Your task to perform on an android device: Add acer nitro to the cart on costco.com Image 0: 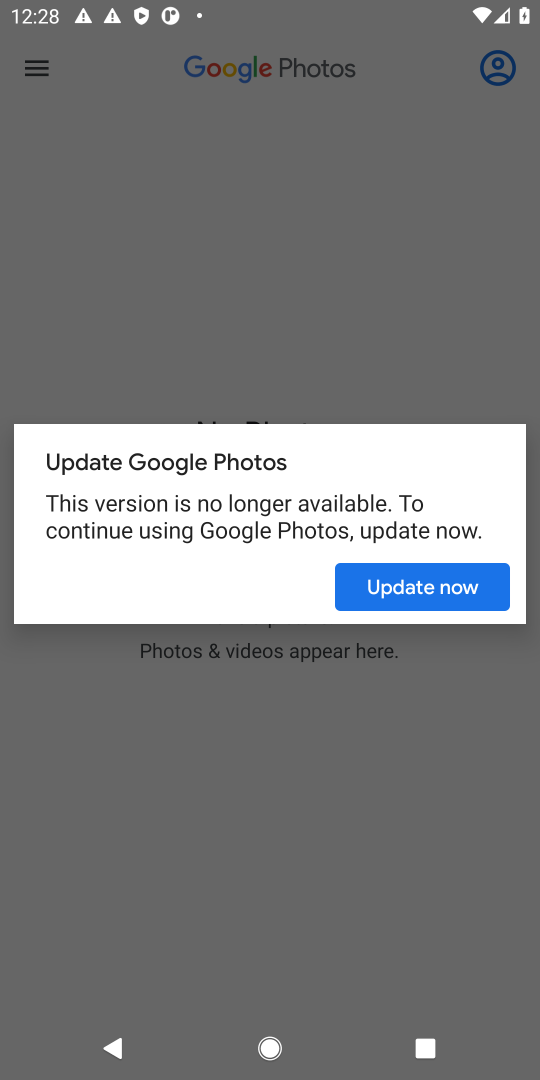
Step 0: press home button
Your task to perform on an android device: Add acer nitro to the cart on costco.com Image 1: 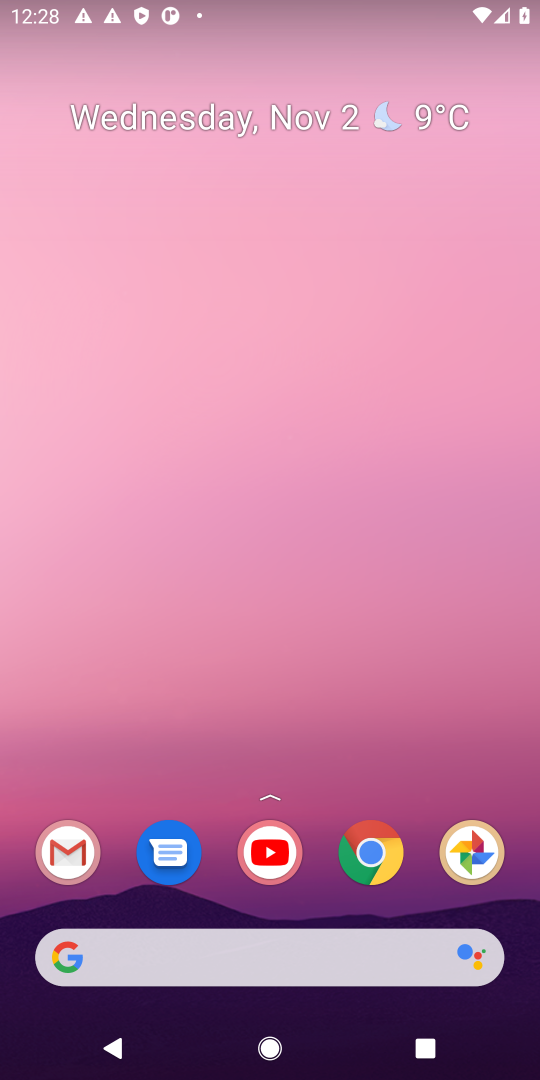
Step 1: drag from (228, 892) to (318, 405)
Your task to perform on an android device: Add acer nitro to the cart on costco.com Image 2: 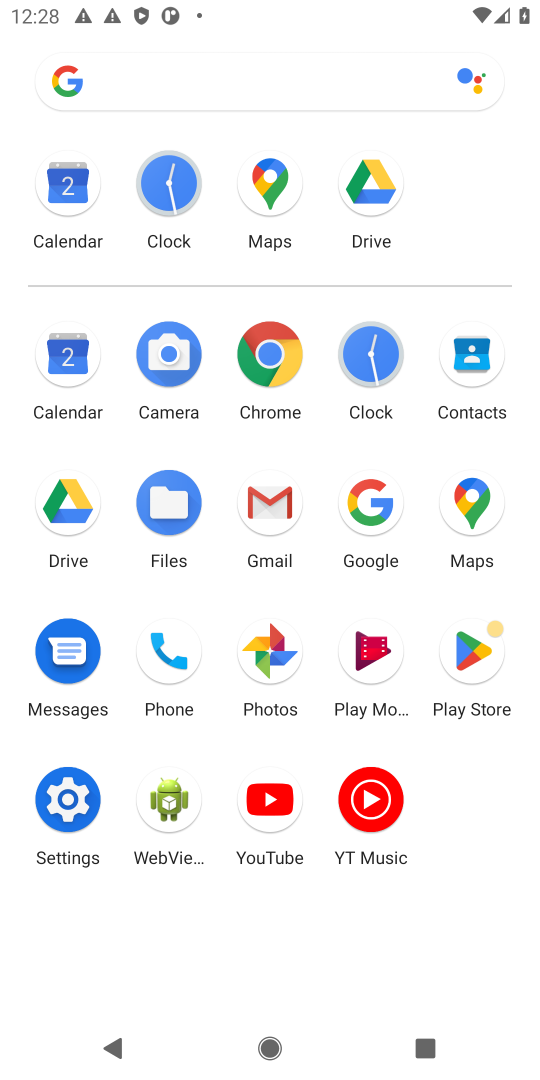
Step 2: click (359, 538)
Your task to perform on an android device: Add acer nitro to the cart on costco.com Image 3: 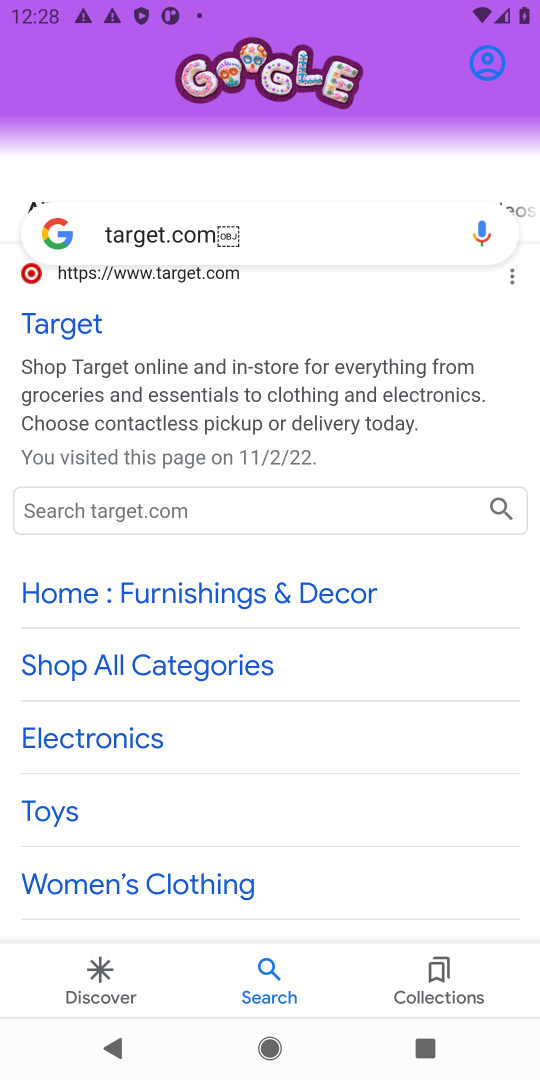
Step 3: click (392, 222)
Your task to perform on an android device: Add acer nitro to the cart on costco.com Image 4: 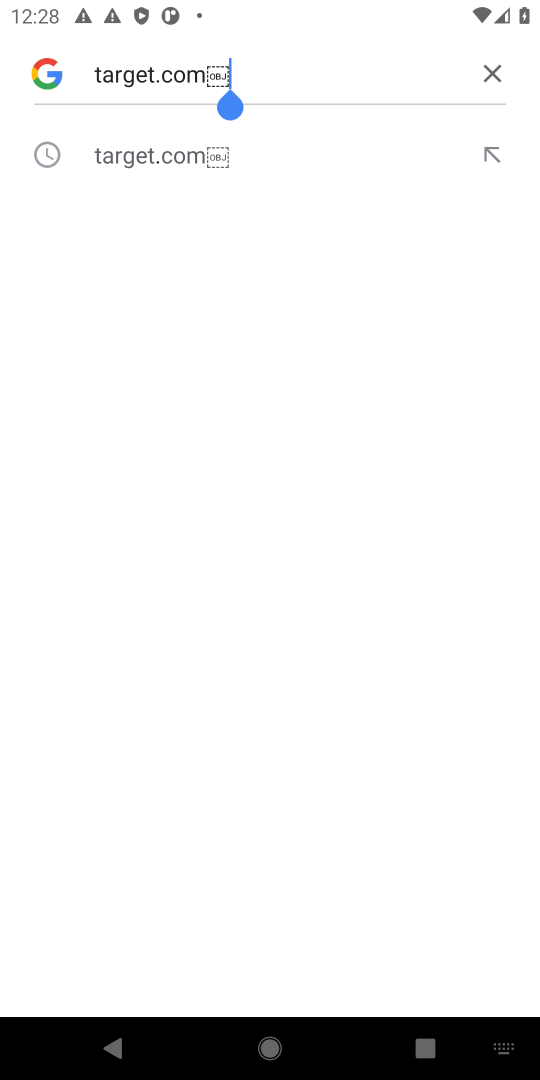
Step 4: click (484, 73)
Your task to perform on an android device: Add acer nitro to the cart on costco.com Image 5: 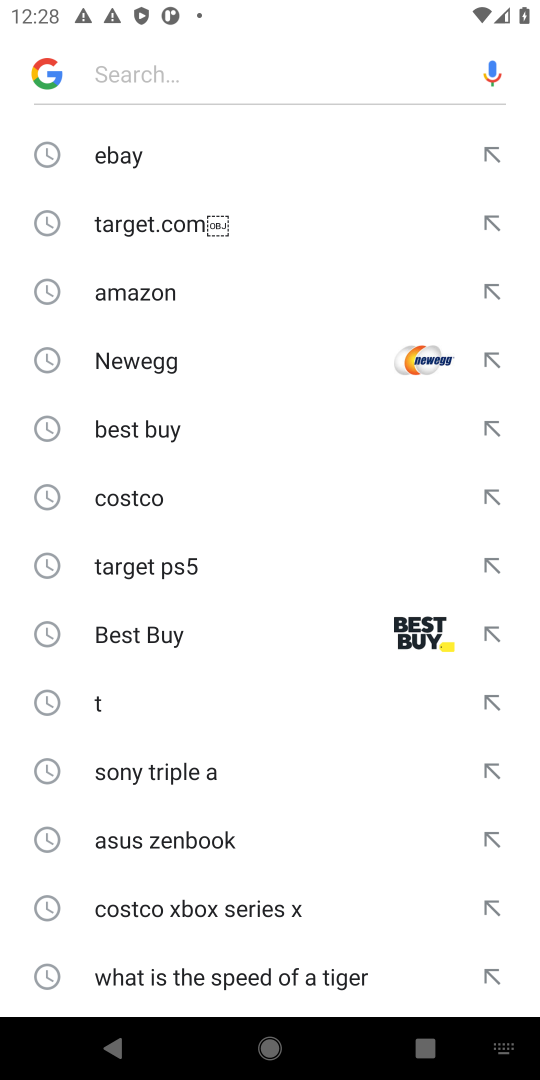
Step 5: type "costco.com"
Your task to perform on an android device: Add acer nitro to the cart on costco.com Image 6: 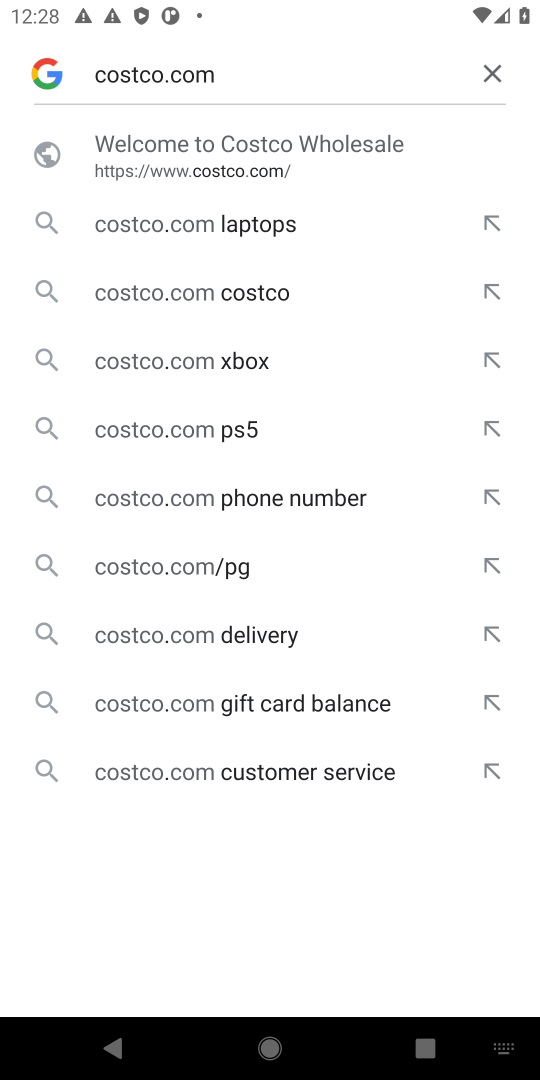
Step 6: click (313, 167)
Your task to perform on an android device: Add acer nitro to the cart on costco.com Image 7: 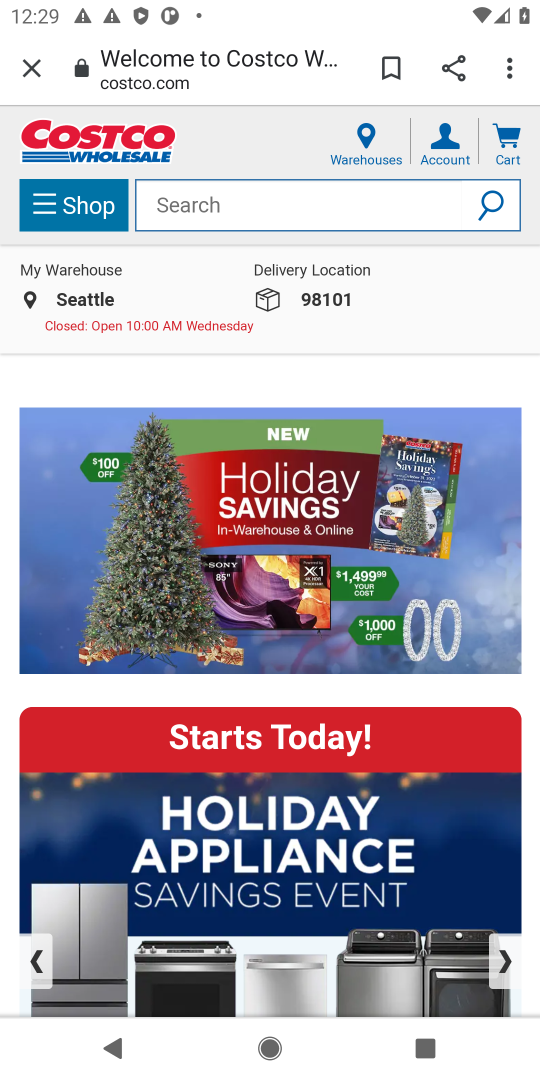
Step 7: click (380, 224)
Your task to perform on an android device: Add acer nitro to the cart on costco.com Image 8: 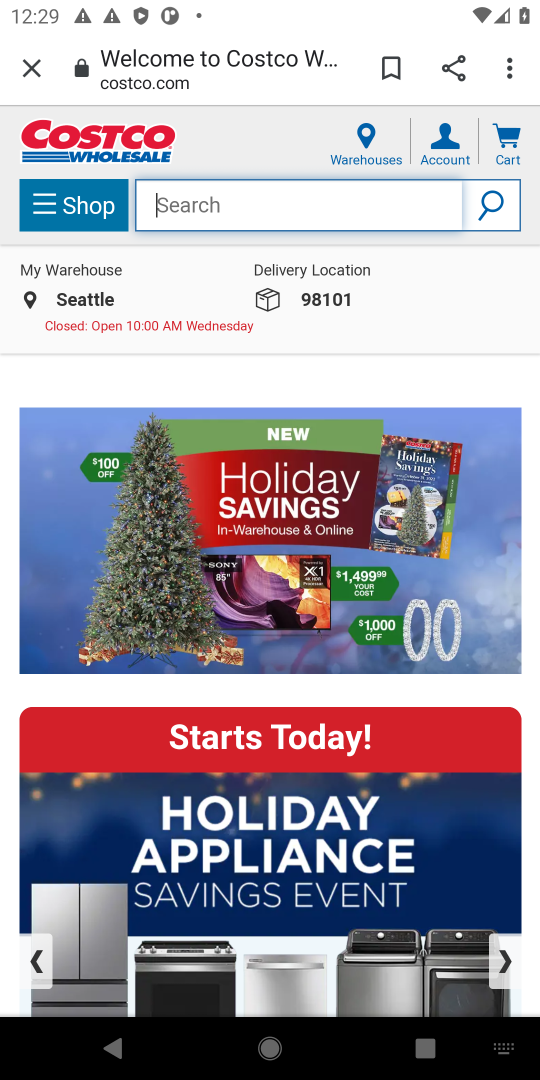
Step 8: type "acer nitro"
Your task to perform on an android device: Add acer nitro to the cart on costco.com Image 9: 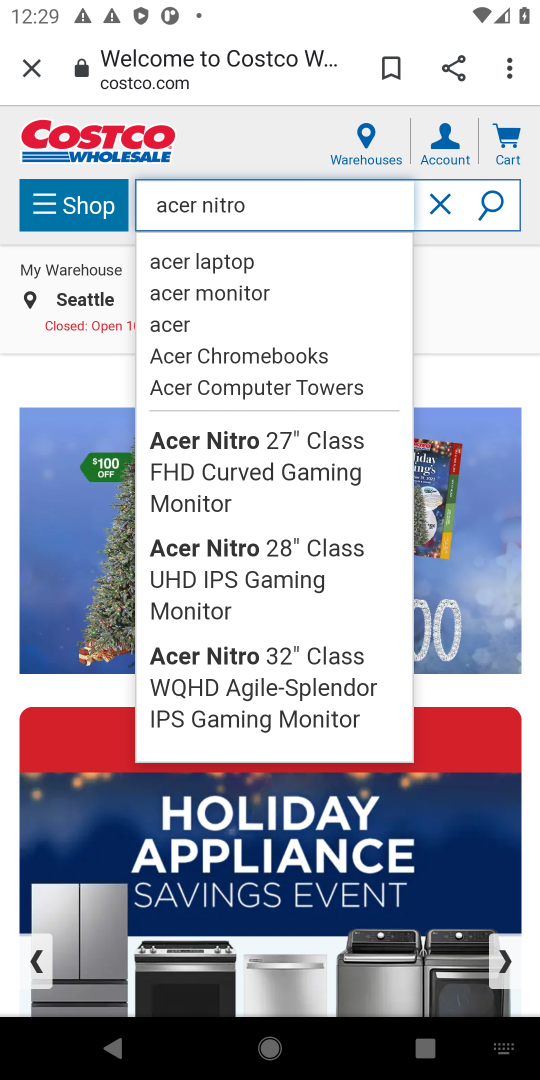
Step 9: click (274, 493)
Your task to perform on an android device: Add acer nitro to the cart on costco.com Image 10: 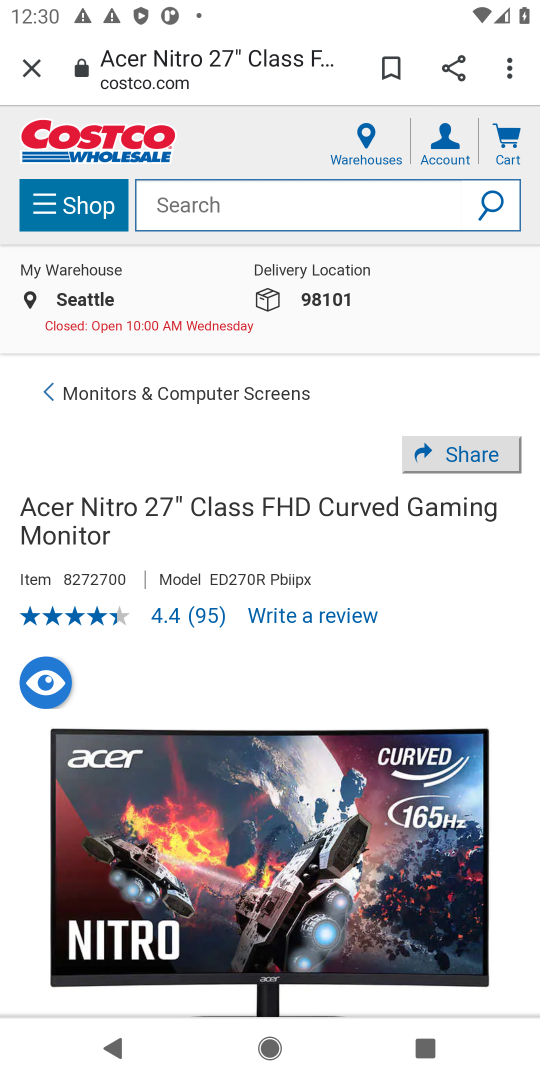
Step 10: drag from (261, 802) to (437, 251)
Your task to perform on an android device: Add acer nitro to the cart on costco.com Image 11: 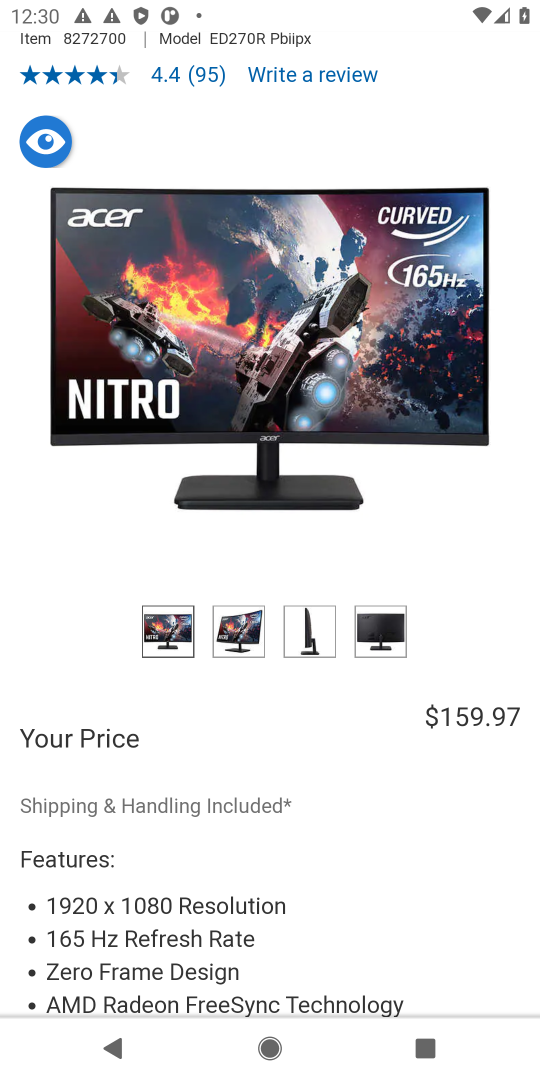
Step 11: drag from (420, 855) to (482, 342)
Your task to perform on an android device: Add acer nitro to the cart on costco.com Image 12: 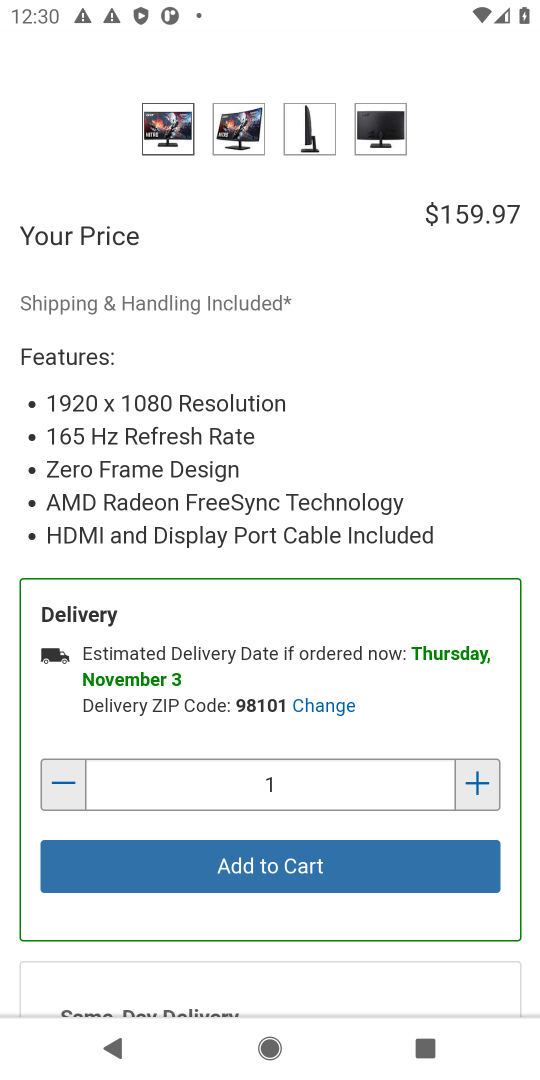
Step 12: drag from (349, 558) to (421, 199)
Your task to perform on an android device: Add acer nitro to the cart on costco.com Image 13: 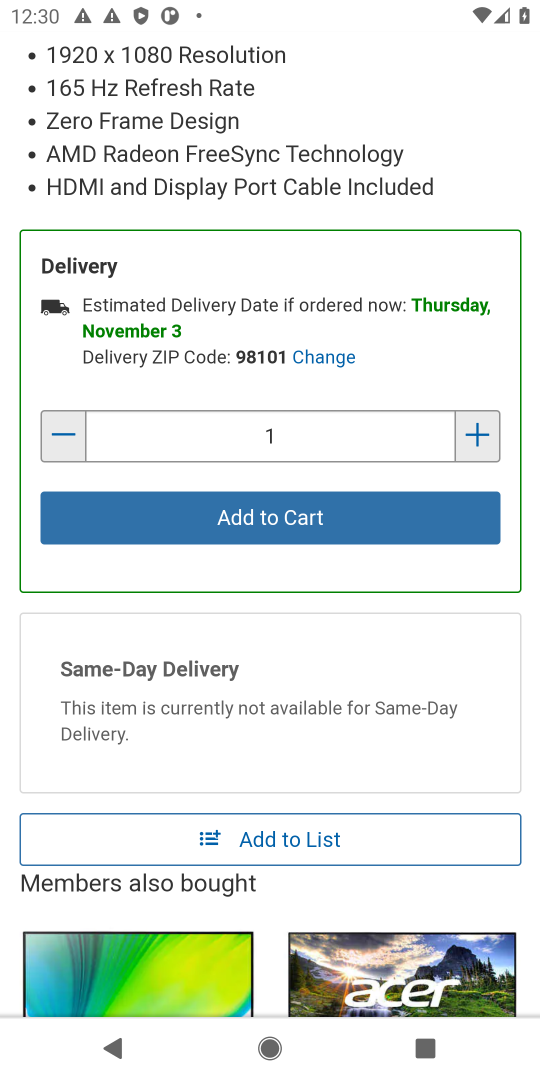
Step 13: click (414, 520)
Your task to perform on an android device: Add acer nitro to the cart on costco.com Image 14: 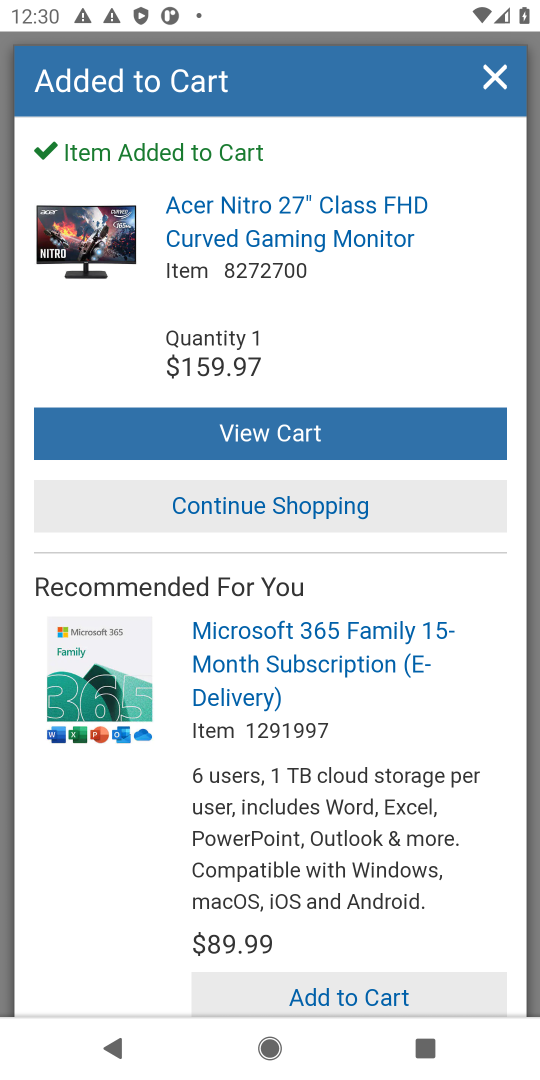
Step 14: task complete